Your task to perform on an android device: delete browsing data in the chrome app Image 0: 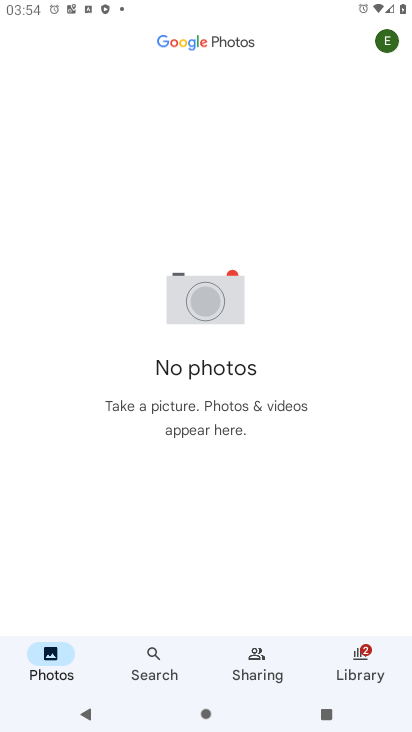
Step 0: press home button
Your task to perform on an android device: delete browsing data in the chrome app Image 1: 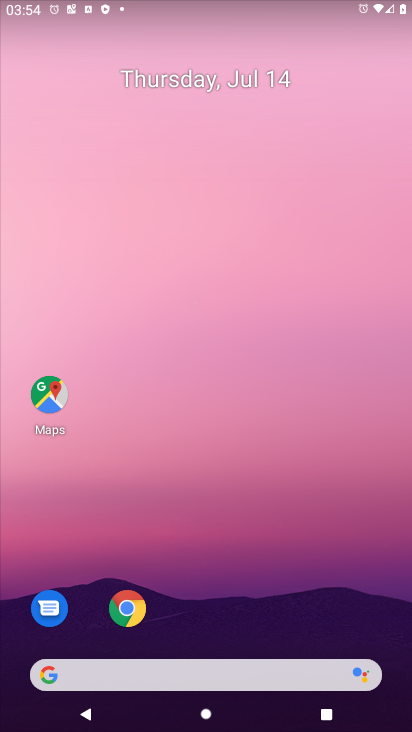
Step 1: click (128, 611)
Your task to perform on an android device: delete browsing data in the chrome app Image 2: 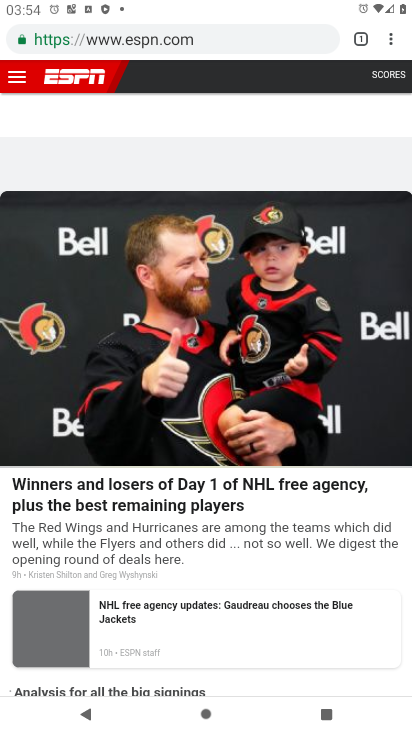
Step 2: click (387, 43)
Your task to perform on an android device: delete browsing data in the chrome app Image 3: 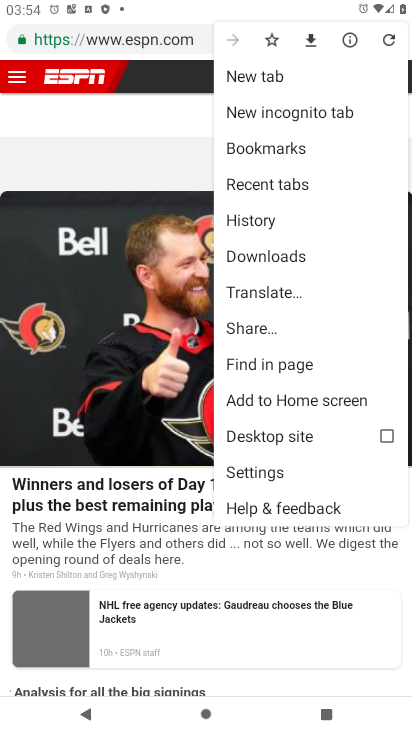
Step 3: click (244, 220)
Your task to perform on an android device: delete browsing data in the chrome app Image 4: 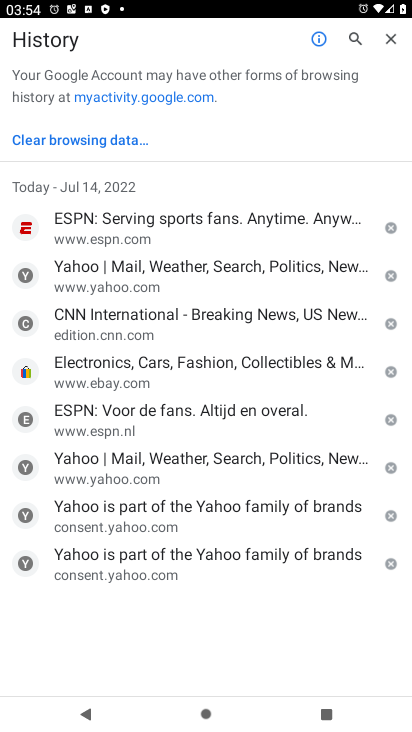
Step 4: click (56, 131)
Your task to perform on an android device: delete browsing data in the chrome app Image 5: 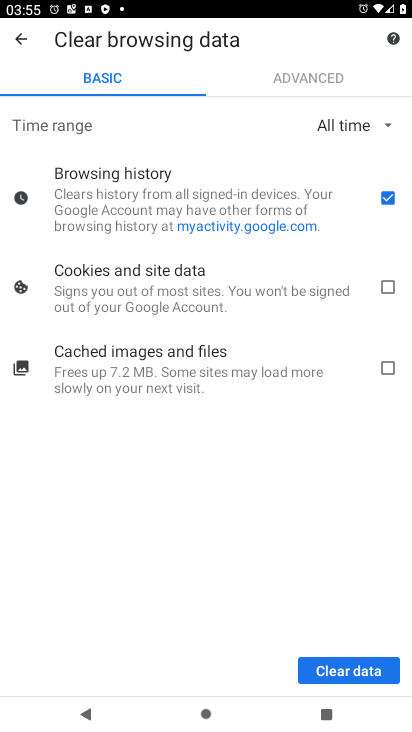
Step 5: click (334, 664)
Your task to perform on an android device: delete browsing data in the chrome app Image 6: 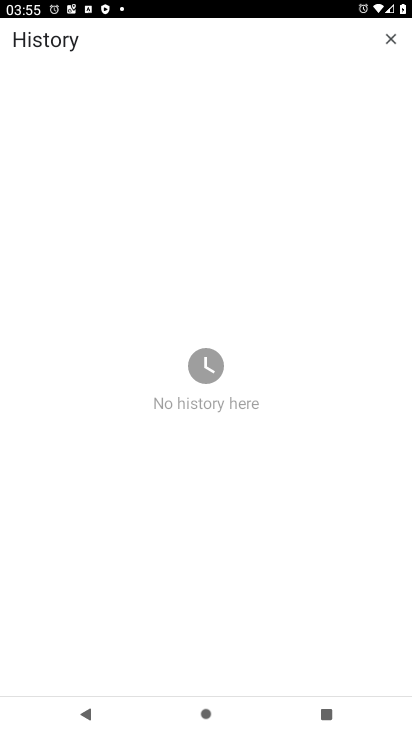
Step 6: task complete